Your task to perform on an android device: Go to ESPN.com Image 0: 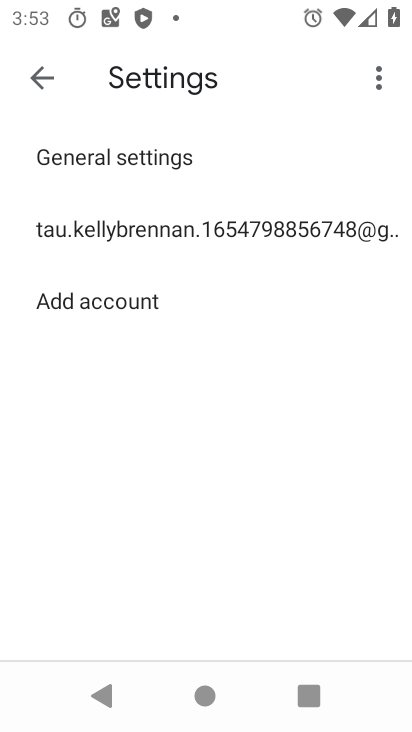
Step 0: press home button
Your task to perform on an android device: Go to ESPN.com Image 1: 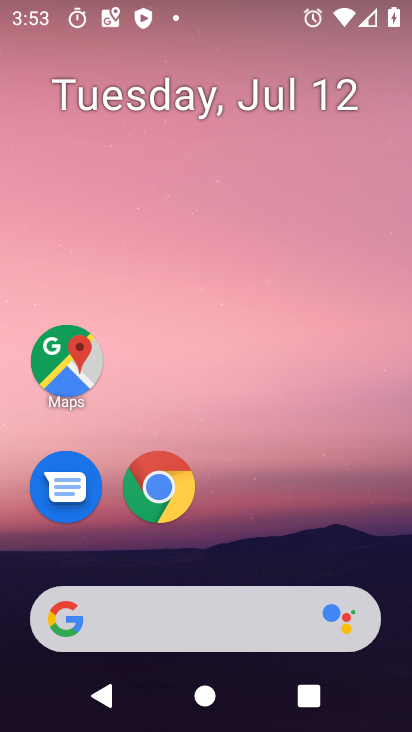
Step 1: click (149, 493)
Your task to perform on an android device: Go to ESPN.com Image 2: 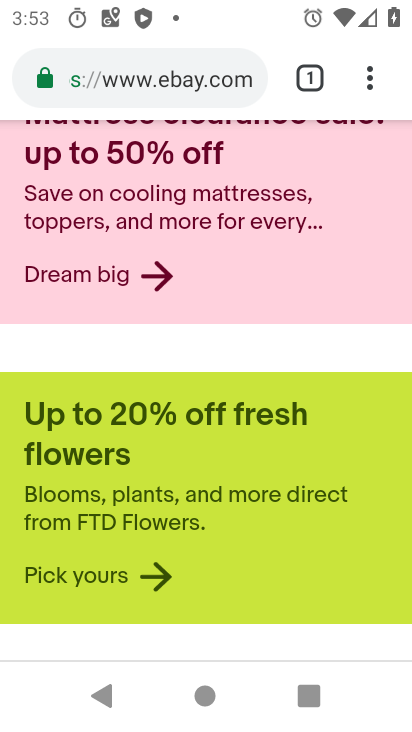
Step 2: click (305, 85)
Your task to perform on an android device: Go to ESPN.com Image 3: 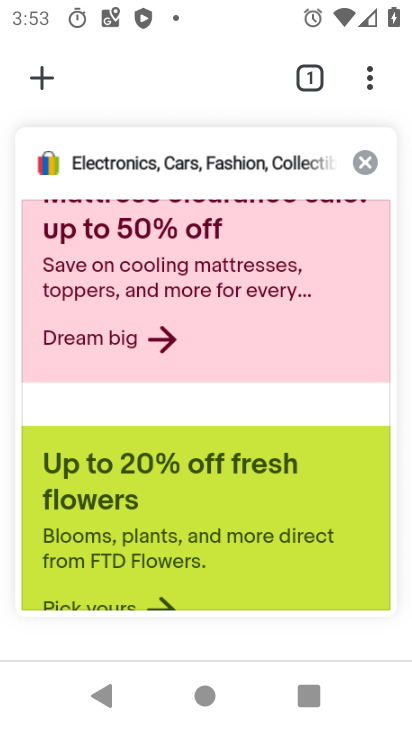
Step 3: click (45, 67)
Your task to perform on an android device: Go to ESPN.com Image 4: 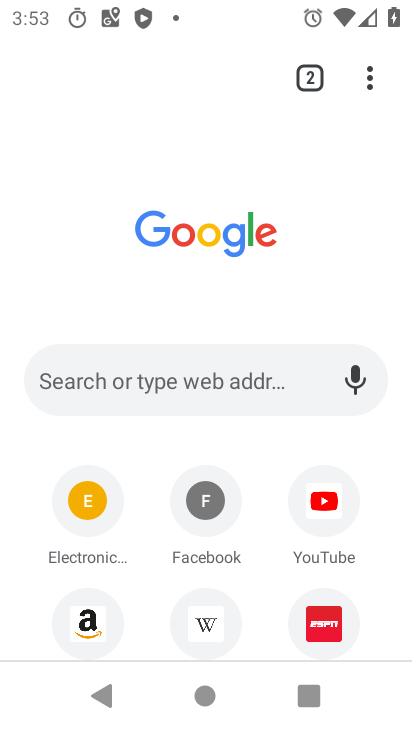
Step 4: drag from (298, 631) to (299, 390)
Your task to perform on an android device: Go to ESPN.com Image 5: 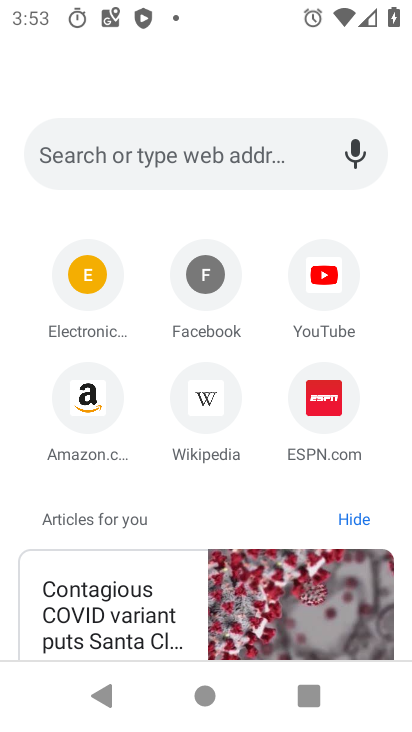
Step 5: click (319, 417)
Your task to perform on an android device: Go to ESPN.com Image 6: 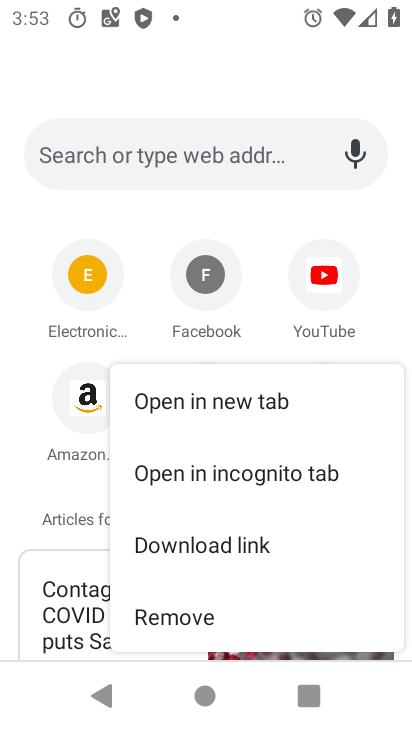
Step 6: click (47, 236)
Your task to perform on an android device: Go to ESPN.com Image 7: 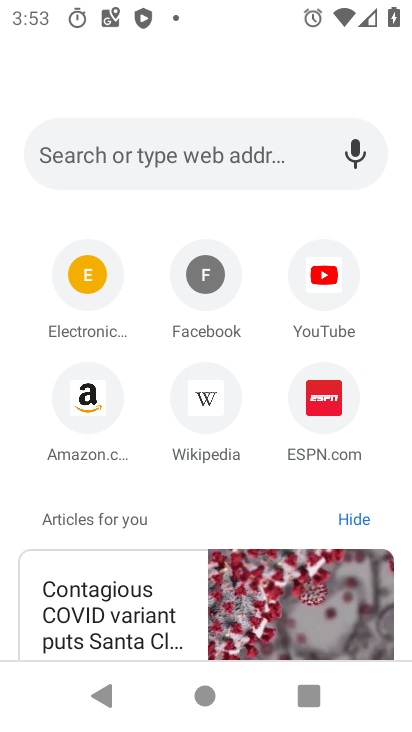
Step 7: click (335, 394)
Your task to perform on an android device: Go to ESPN.com Image 8: 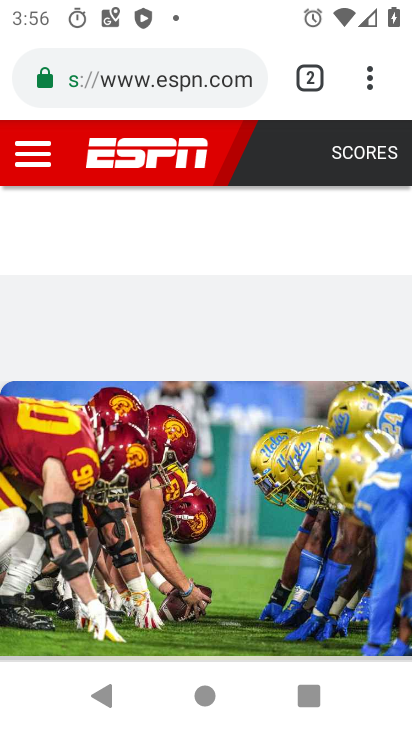
Step 8: task complete